Your task to perform on an android device: Open Maps and search for coffee Image 0: 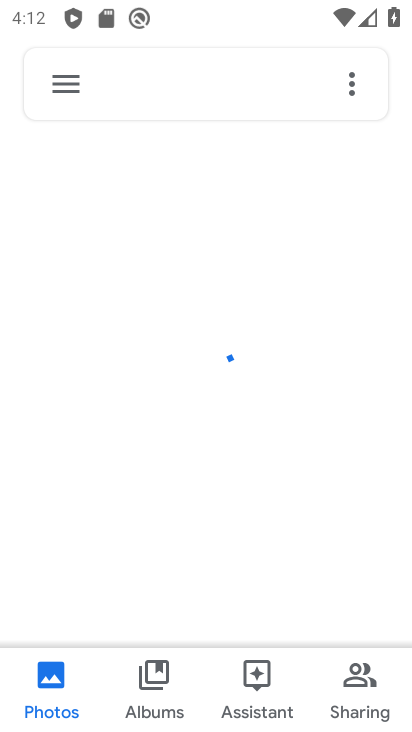
Step 0: press home button
Your task to perform on an android device: Open Maps and search for coffee Image 1: 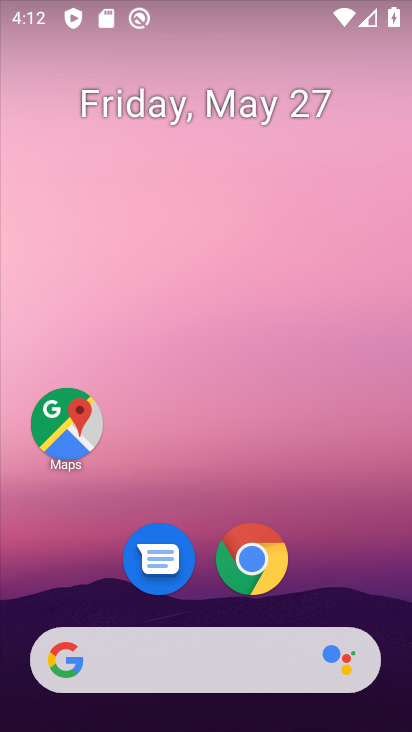
Step 1: click (56, 422)
Your task to perform on an android device: Open Maps and search for coffee Image 2: 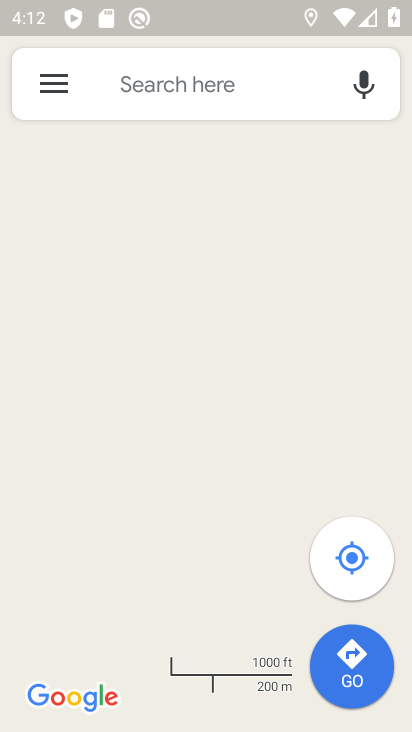
Step 2: click (96, 78)
Your task to perform on an android device: Open Maps and search for coffee Image 3: 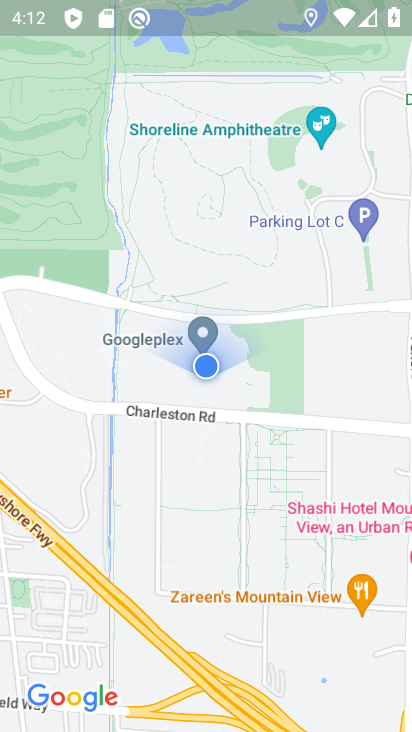
Step 3: drag from (125, 129) to (131, 488)
Your task to perform on an android device: Open Maps and search for coffee Image 4: 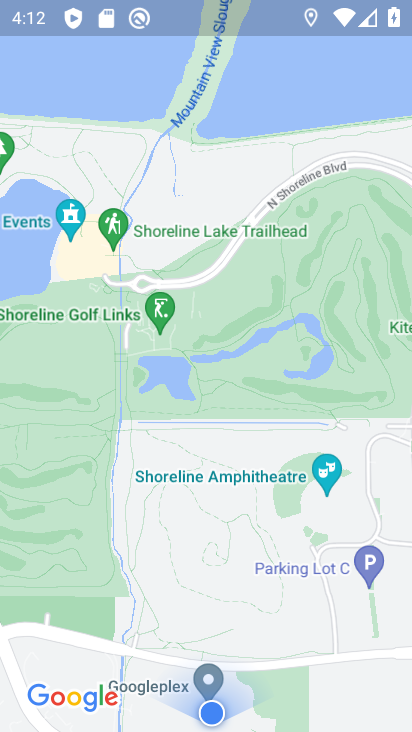
Step 4: drag from (103, 241) to (107, 482)
Your task to perform on an android device: Open Maps and search for coffee Image 5: 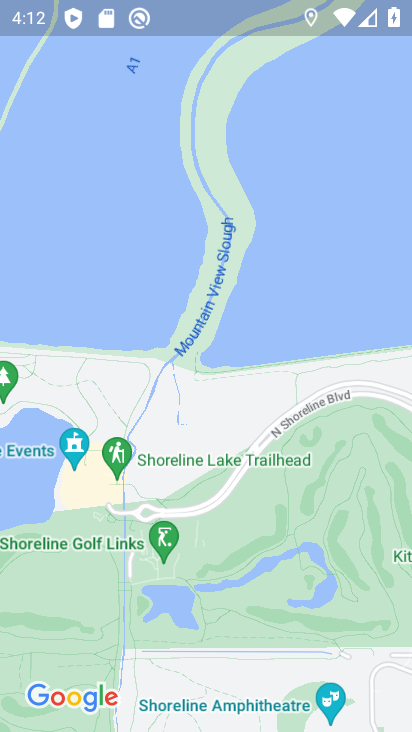
Step 5: press back button
Your task to perform on an android device: Open Maps and search for coffee Image 6: 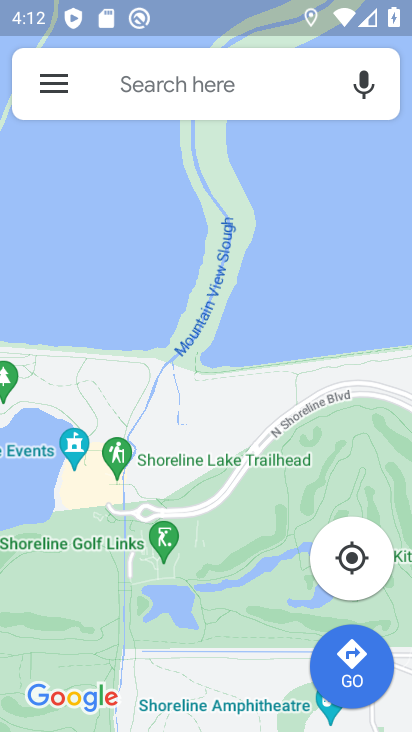
Step 6: click (96, 81)
Your task to perform on an android device: Open Maps and search for coffee Image 7: 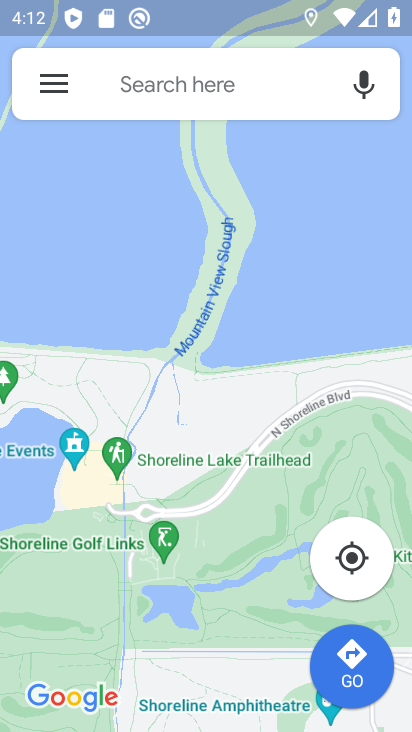
Step 7: click (99, 77)
Your task to perform on an android device: Open Maps and search for coffee Image 8: 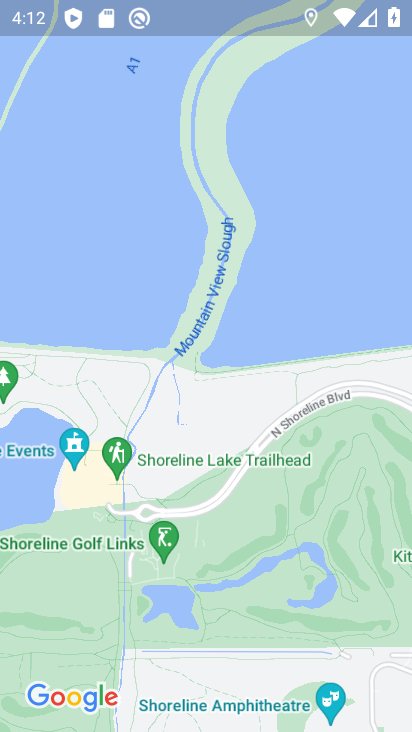
Step 8: press back button
Your task to perform on an android device: Open Maps and search for coffee Image 9: 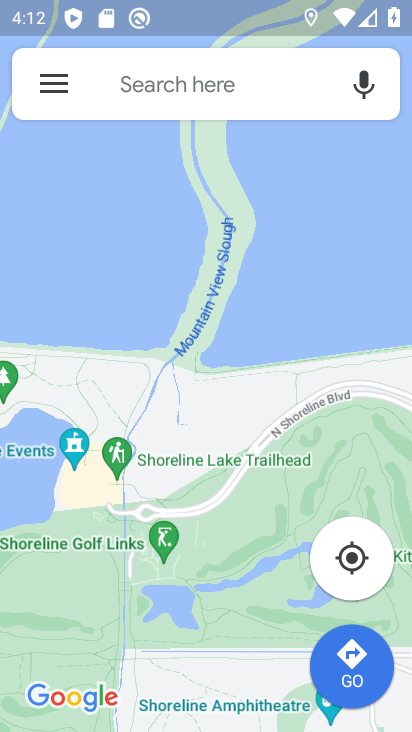
Step 9: click (95, 77)
Your task to perform on an android device: Open Maps and search for coffee Image 10: 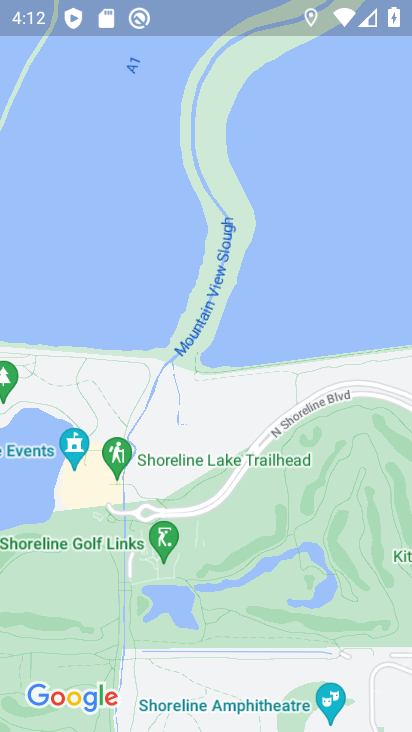
Step 10: press back button
Your task to perform on an android device: Open Maps and search for coffee Image 11: 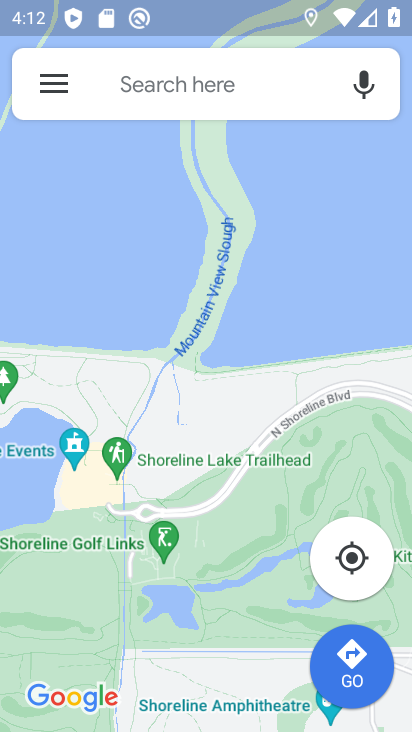
Step 11: click (152, 75)
Your task to perform on an android device: Open Maps and search for coffee Image 12: 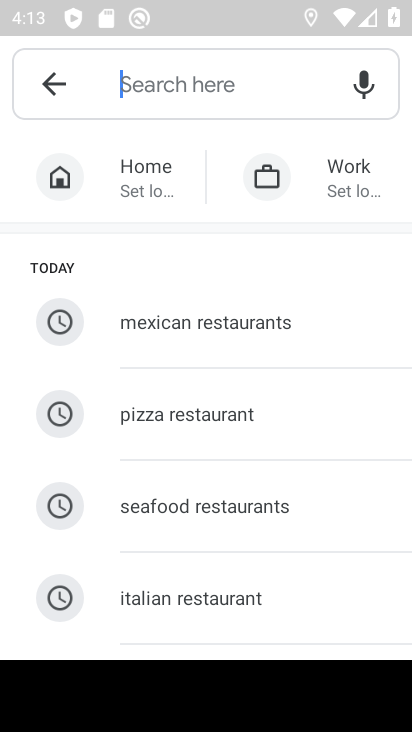
Step 12: type "coffee"
Your task to perform on an android device: Open Maps and search for coffee Image 13: 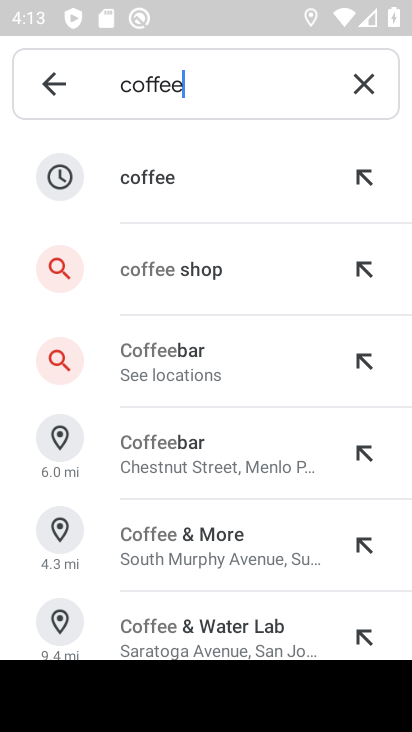
Step 13: click (114, 263)
Your task to perform on an android device: Open Maps and search for coffee Image 14: 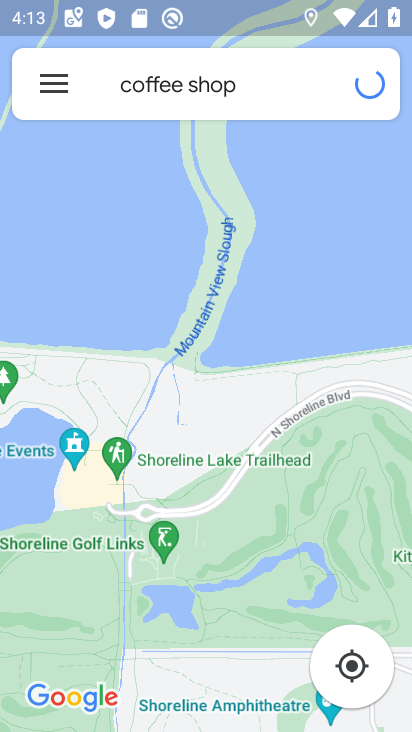
Step 14: task complete